Your task to perform on an android device: Check the weather Image 0: 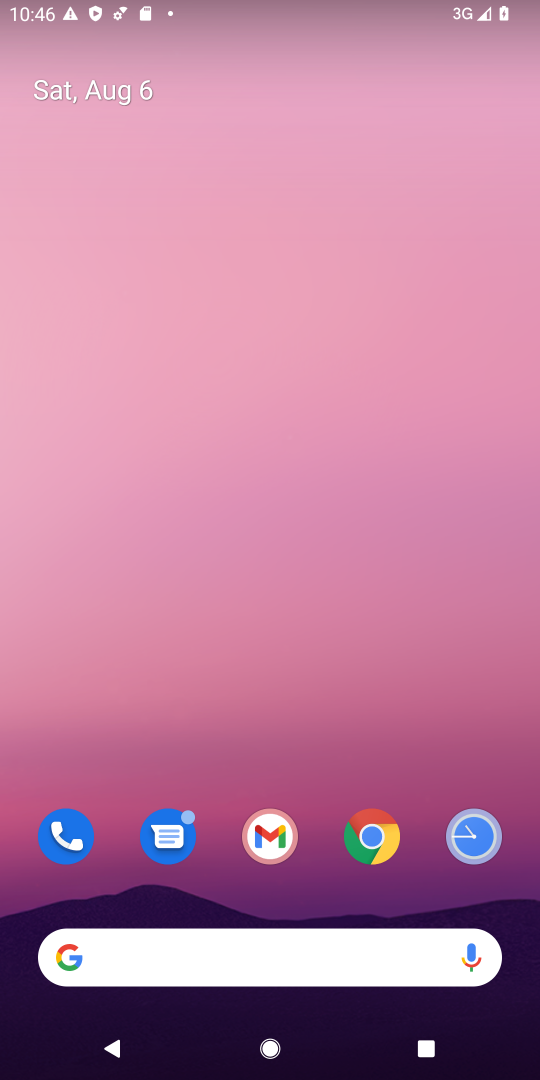
Step 0: drag from (239, 732) to (242, 113)
Your task to perform on an android device: Check the weather Image 1: 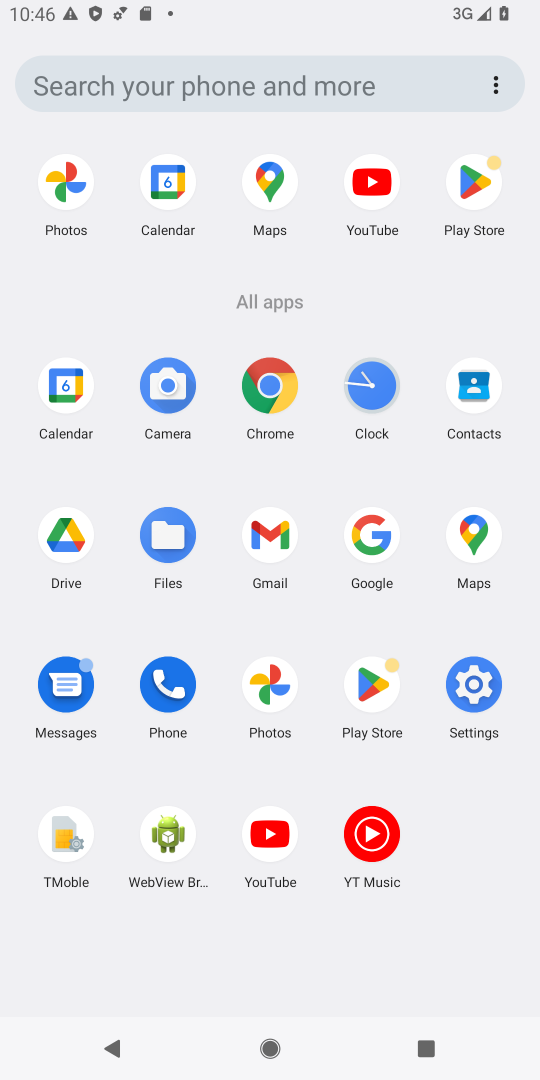
Step 1: click (366, 519)
Your task to perform on an android device: Check the weather Image 2: 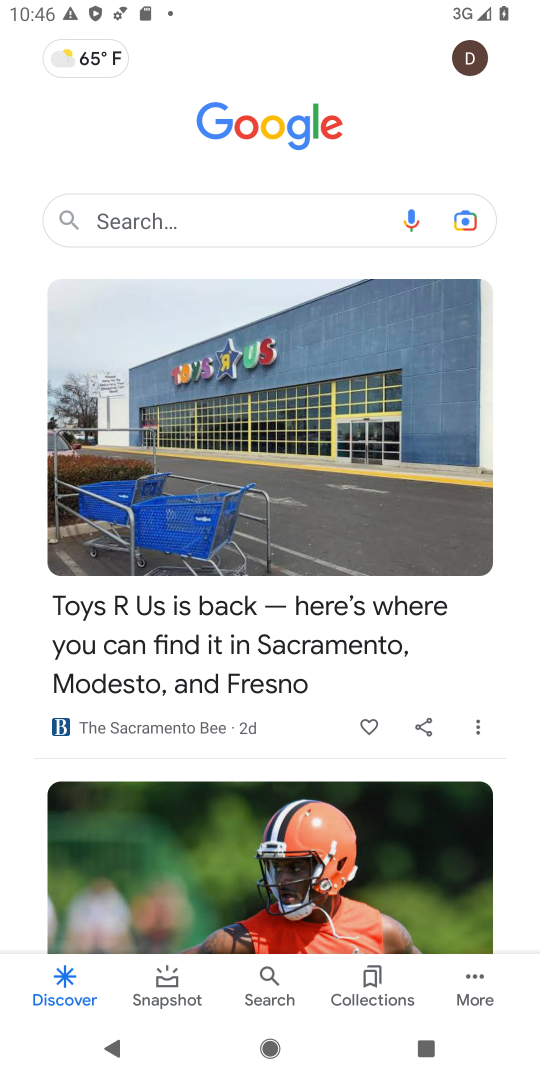
Step 2: click (244, 228)
Your task to perform on an android device: Check the weather Image 3: 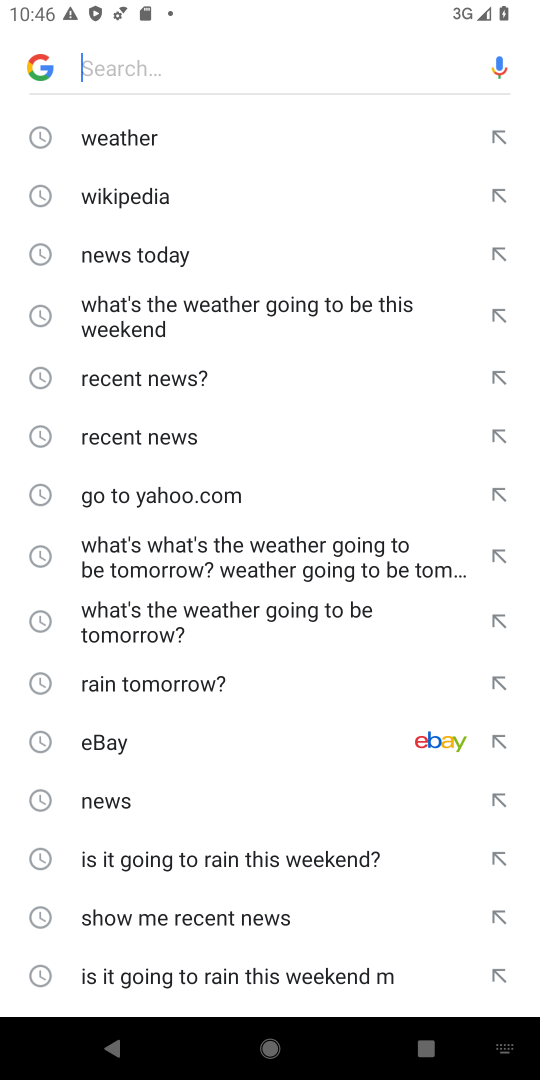
Step 3: click (127, 140)
Your task to perform on an android device: Check the weather Image 4: 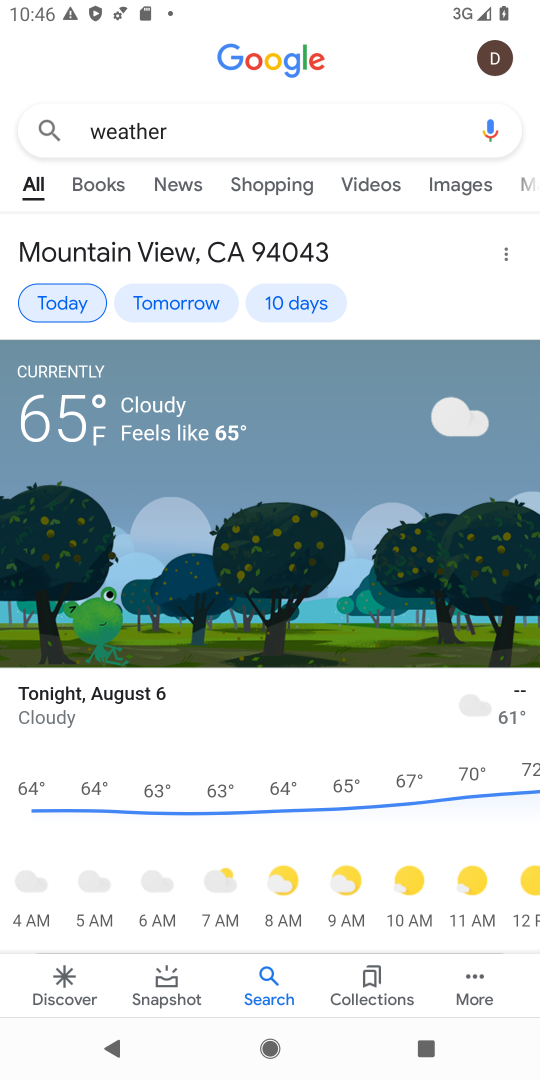
Step 4: task complete